Your task to perform on an android device: open app "Google Photos" (install if not already installed) Image 0: 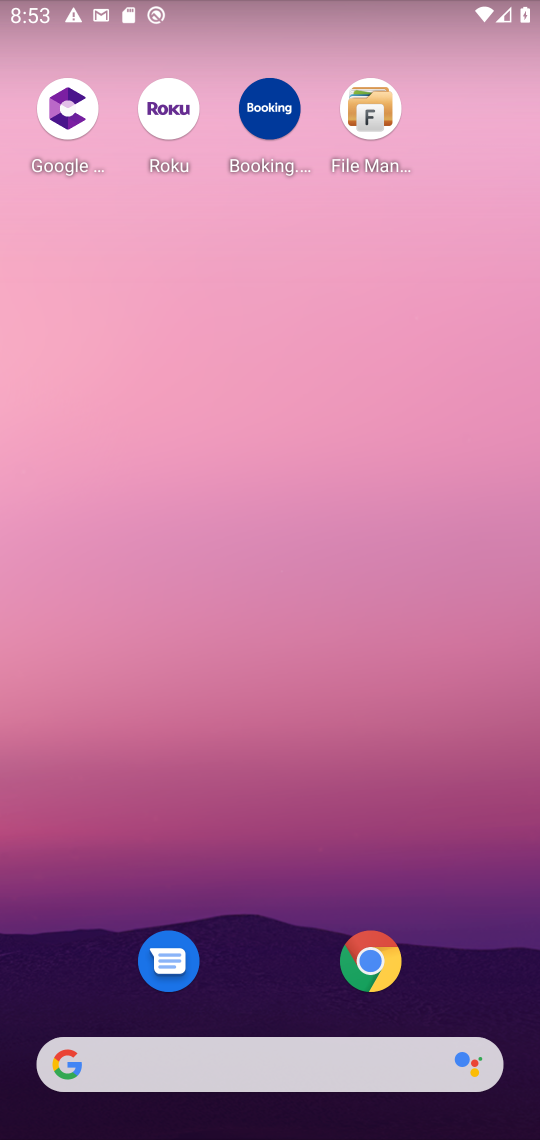
Step 0: drag from (257, 997) to (204, 570)
Your task to perform on an android device: open app "Google Photos" (install if not already installed) Image 1: 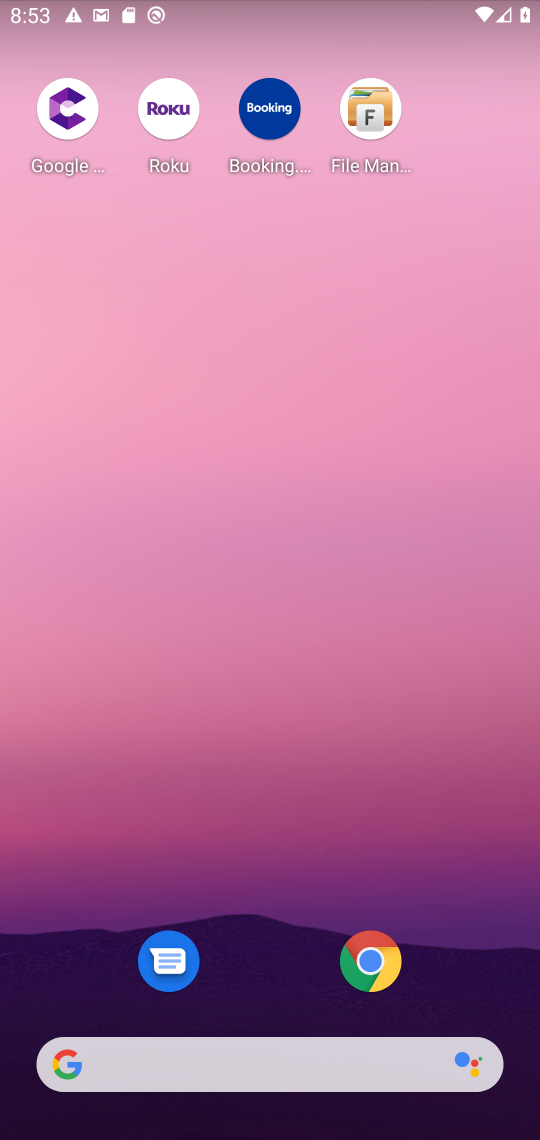
Step 1: drag from (267, 962) to (321, 15)
Your task to perform on an android device: open app "Google Photos" (install if not already installed) Image 2: 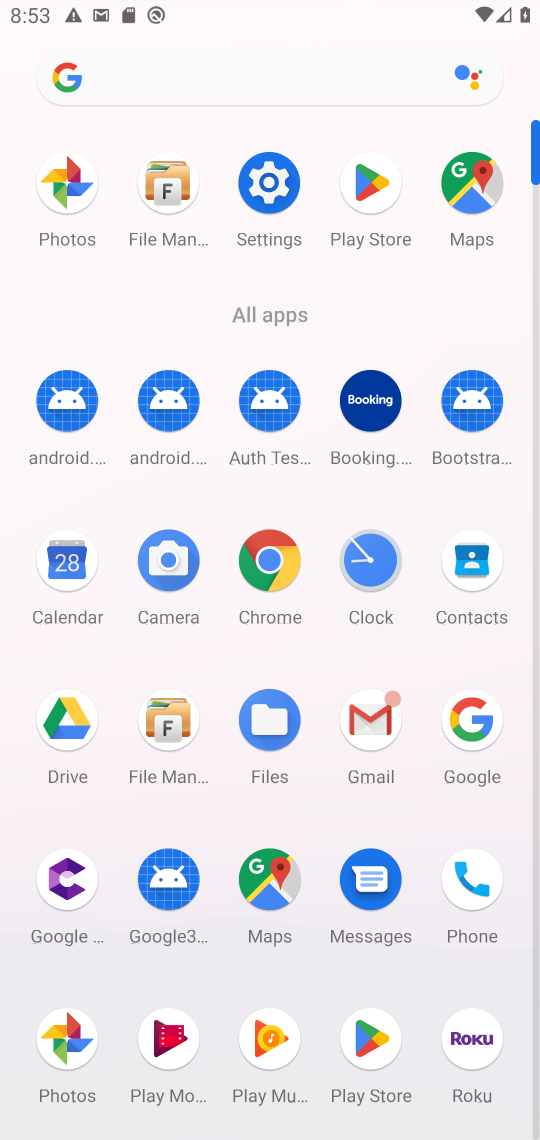
Step 2: click (60, 1053)
Your task to perform on an android device: open app "Google Photos" (install if not already installed) Image 3: 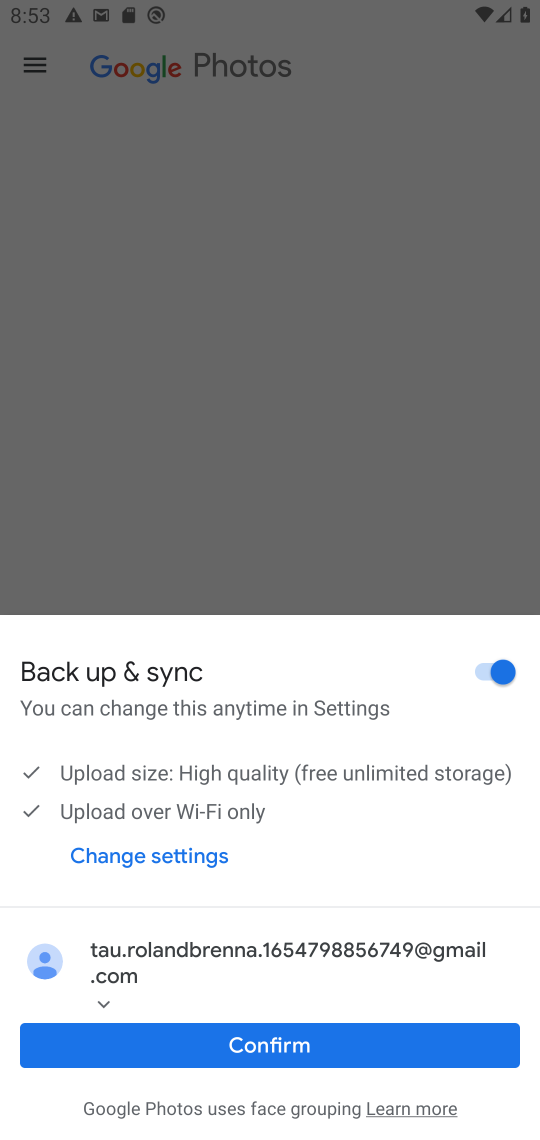
Step 3: click (60, 1053)
Your task to perform on an android device: open app "Google Photos" (install if not already installed) Image 4: 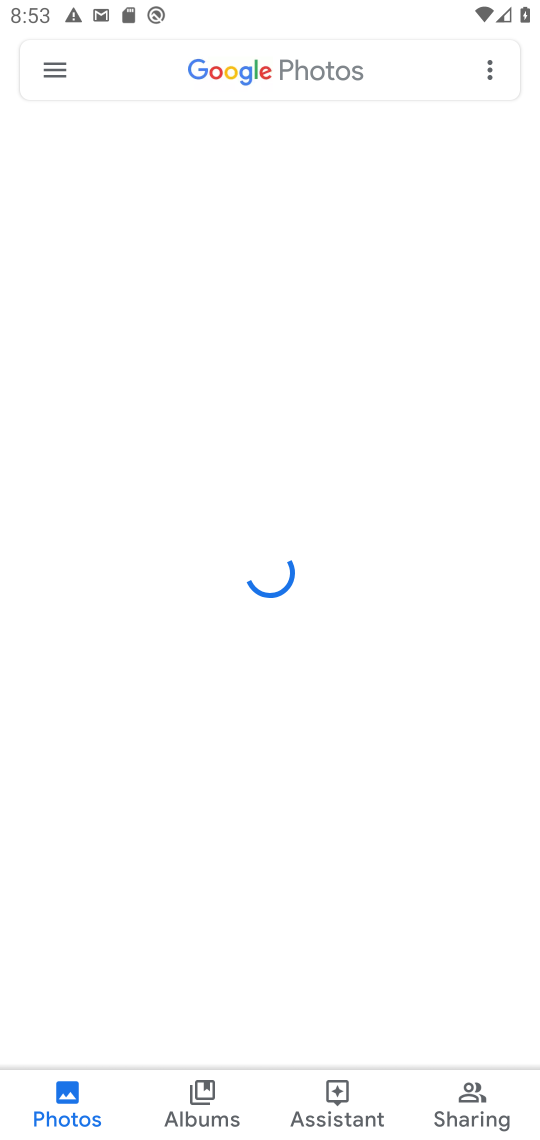
Step 4: task complete